Your task to perform on an android device: Open Chrome and go to the settings page Image 0: 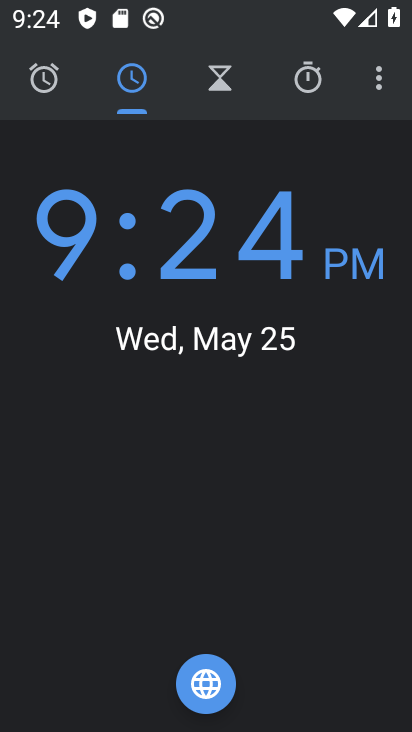
Step 0: press home button
Your task to perform on an android device: Open Chrome and go to the settings page Image 1: 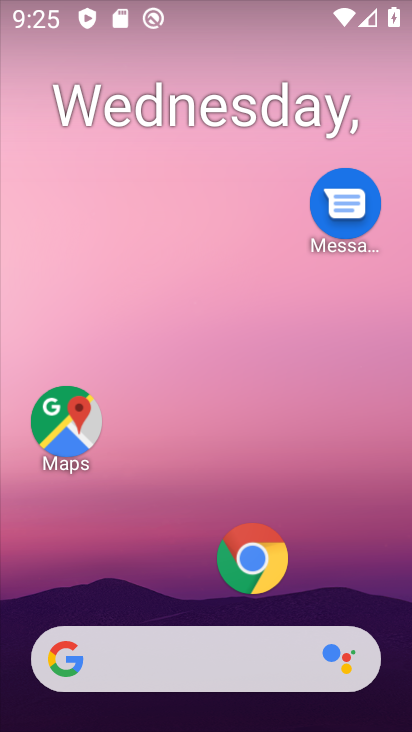
Step 1: click (244, 558)
Your task to perform on an android device: Open Chrome and go to the settings page Image 2: 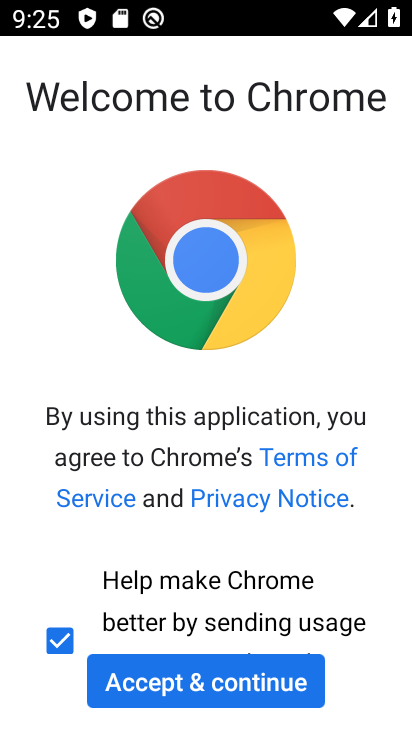
Step 2: click (147, 685)
Your task to perform on an android device: Open Chrome and go to the settings page Image 3: 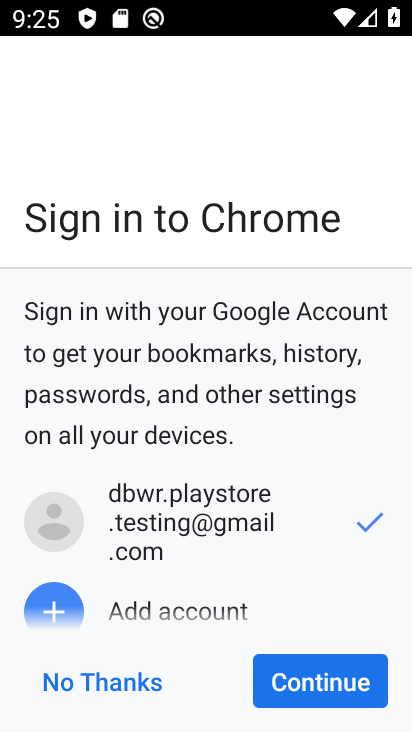
Step 3: click (278, 688)
Your task to perform on an android device: Open Chrome and go to the settings page Image 4: 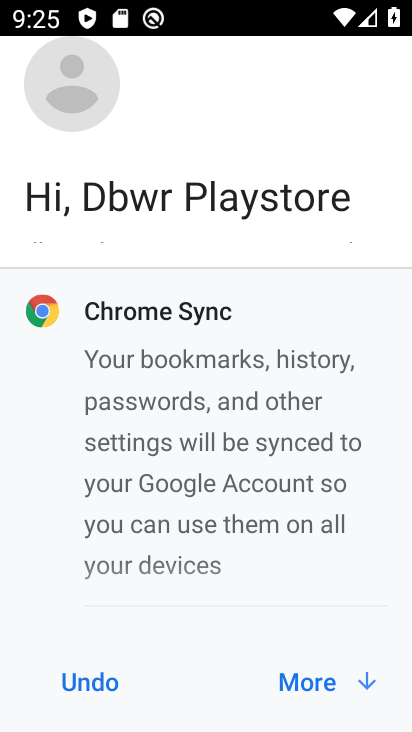
Step 4: click (319, 679)
Your task to perform on an android device: Open Chrome and go to the settings page Image 5: 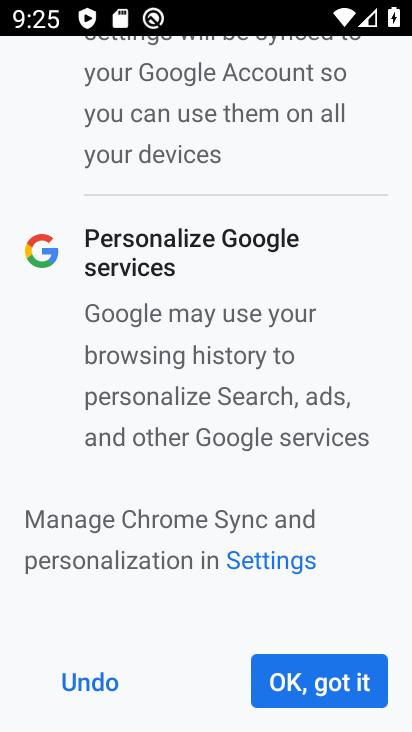
Step 5: click (319, 679)
Your task to perform on an android device: Open Chrome and go to the settings page Image 6: 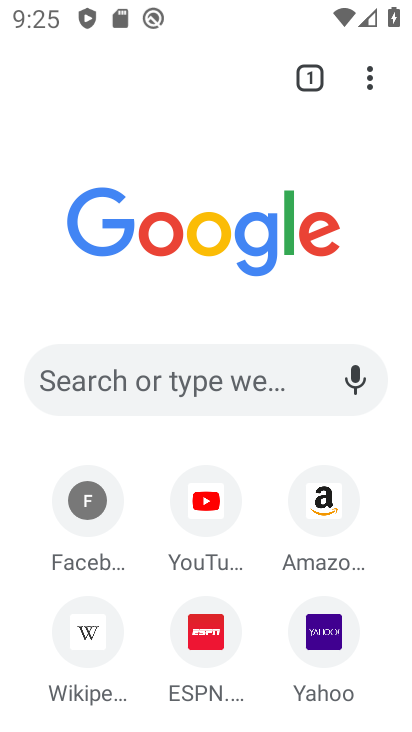
Step 6: task complete